Your task to perform on an android device: Set the phone to "Do not disturb". Image 0: 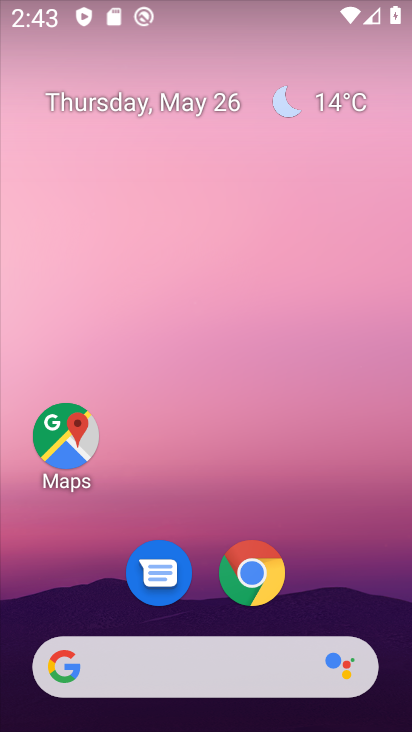
Step 0: drag from (333, 588) to (272, 61)
Your task to perform on an android device: Set the phone to "Do not disturb". Image 1: 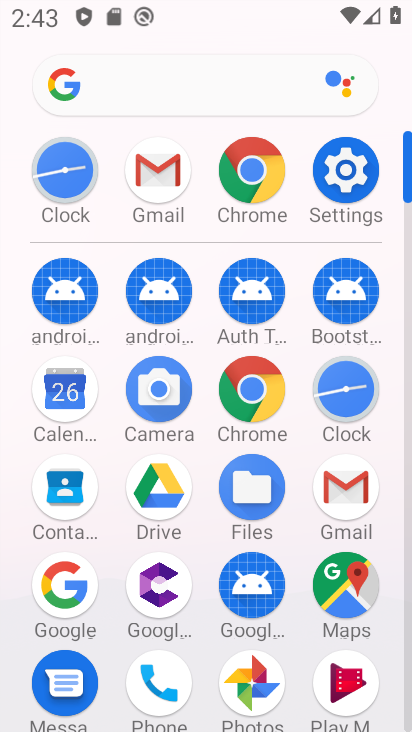
Step 1: drag from (4, 505) to (8, 253)
Your task to perform on an android device: Set the phone to "Do not disturb". Image 2: 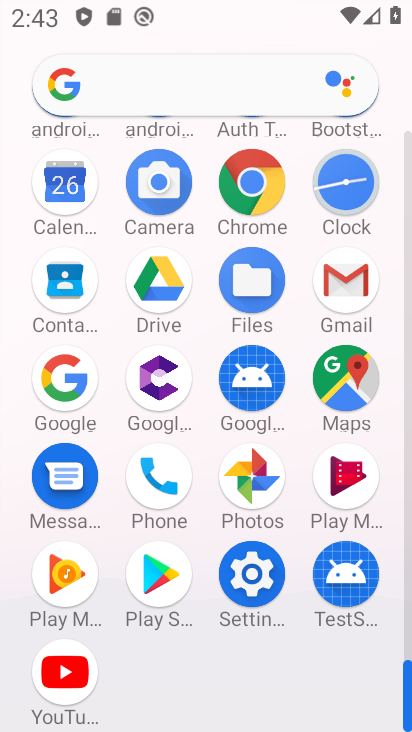
Step 2: click (251, 571)
Your task to perform on an android device: Set the phone to "Do not disturb". Image 3: 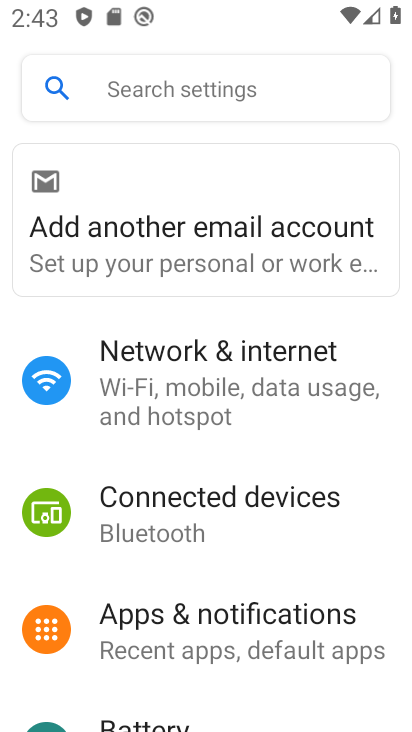
Step 3: drag from (261, 648) to (257, 216)
Your task to perform on an android device: Set the phone to "Do not disturb". Image 4: 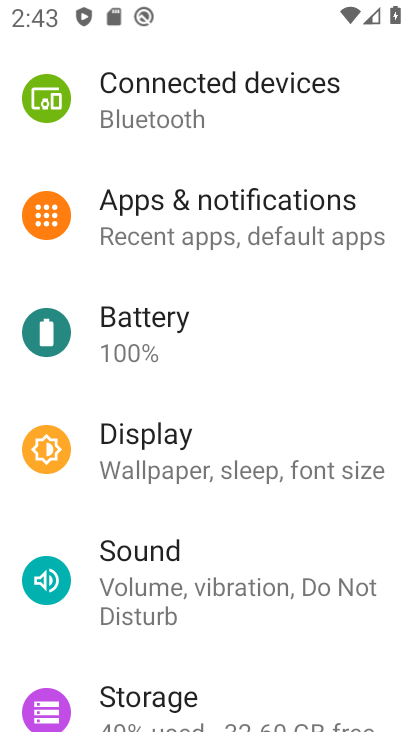
Step 4: click (186, 577)
Your task to perform on an android device: Set the phone to "Do not disturb". Image 5: 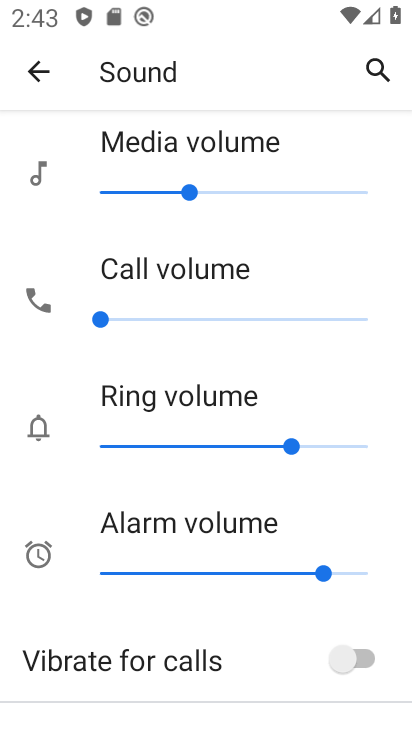
Step 5: drag from (196, 613) to (239, 144)
Your task to perform on an android device: Set the phone to "Do not disturb". Image 6: 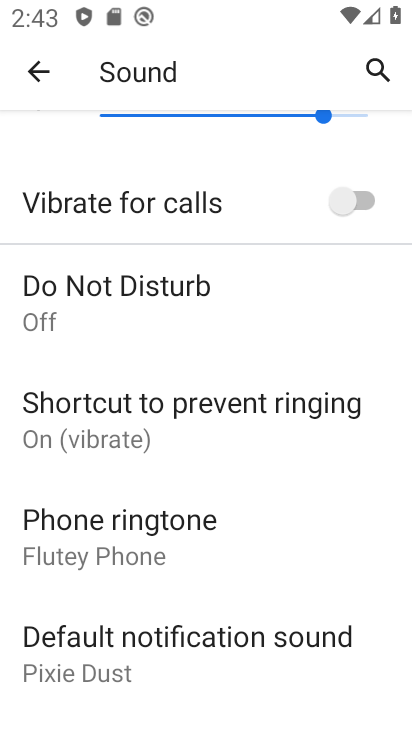
Step 6: click (164, 292)
Your task to perform on an android device: Set the phone to "Do not disturb". Image 7: 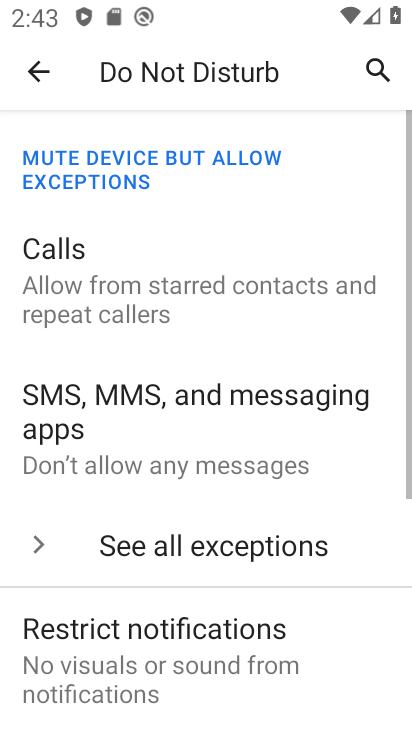
Step 7: drag from (239, 600) to (286, 156)
Your task to perform on an android device: Set the phone to "Do not disturb". Image 8: 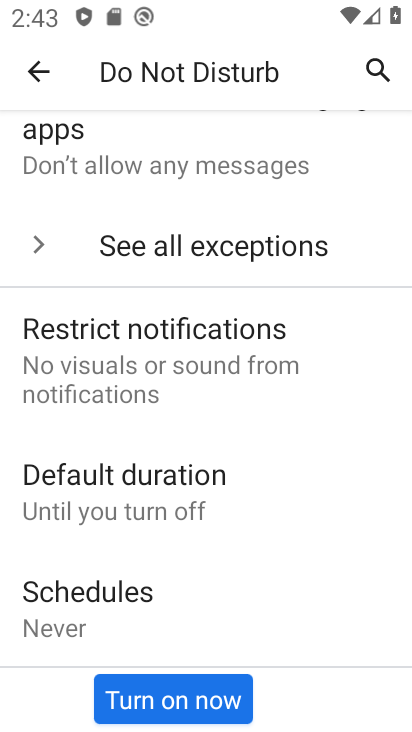
Step 8: click (162, 711)
Your task to perform on an android device: Set the phone to "Do not disturb". Image 9: 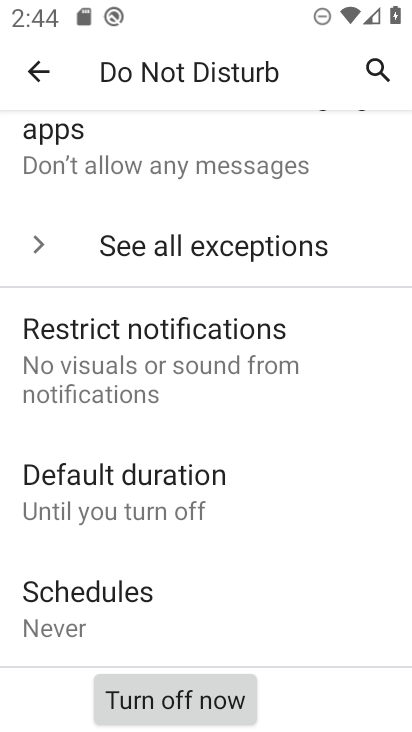
Step 9: task complete